Your task to perform on an android device: Open the calendar app, open the side menu, and click the "Day" option Image 0: 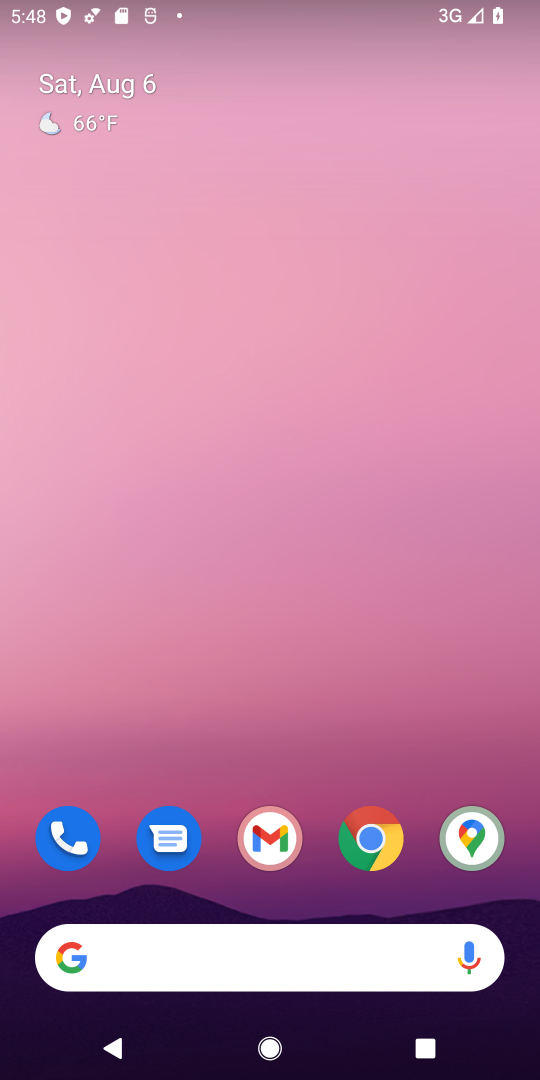
Step 0: drag from (373, 722) to (103, 4)
Your task to perform on an android device: Open the calendar app, open the side menu, and click the "Day" option Image 1: 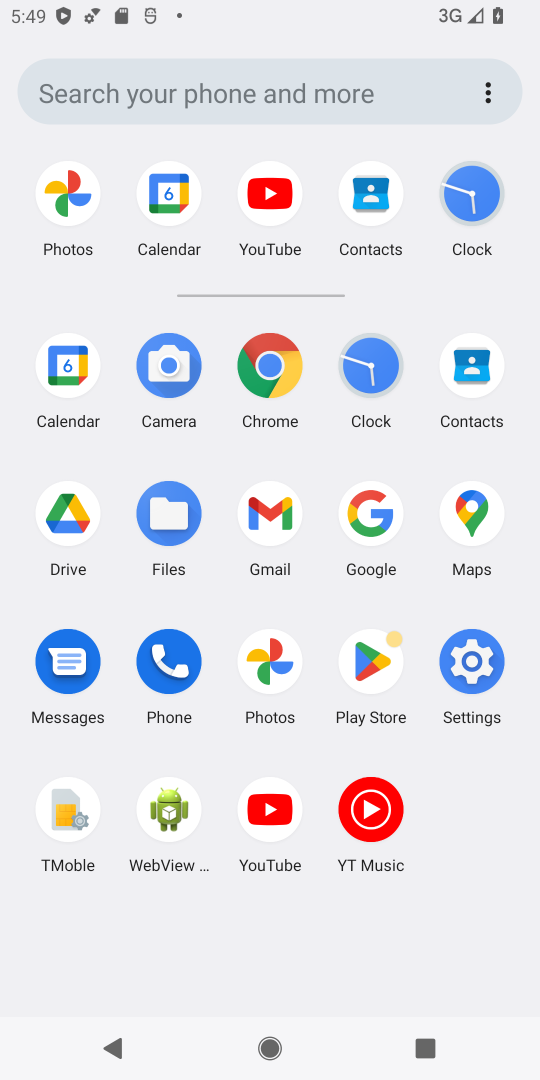
Step 1: click (57, 378)
Your task to perform on an android device: Open the calendar app, open the side menu, and click the "Day" option Image 2: 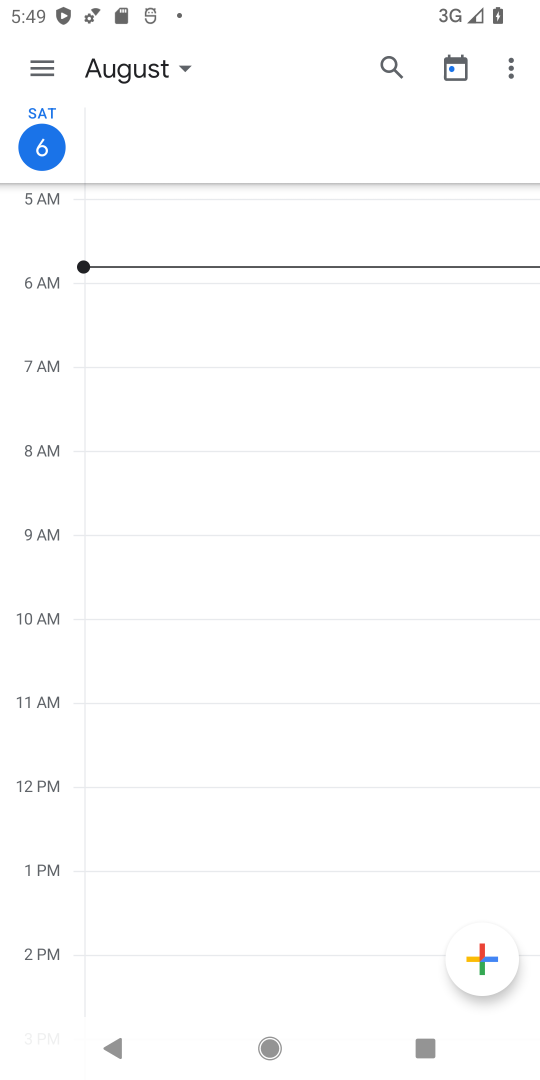
Step 2: click (50, 74)
Your task to perform on an android device: Open the calendar app, open the side menu, and click the "Day" option Image 3: 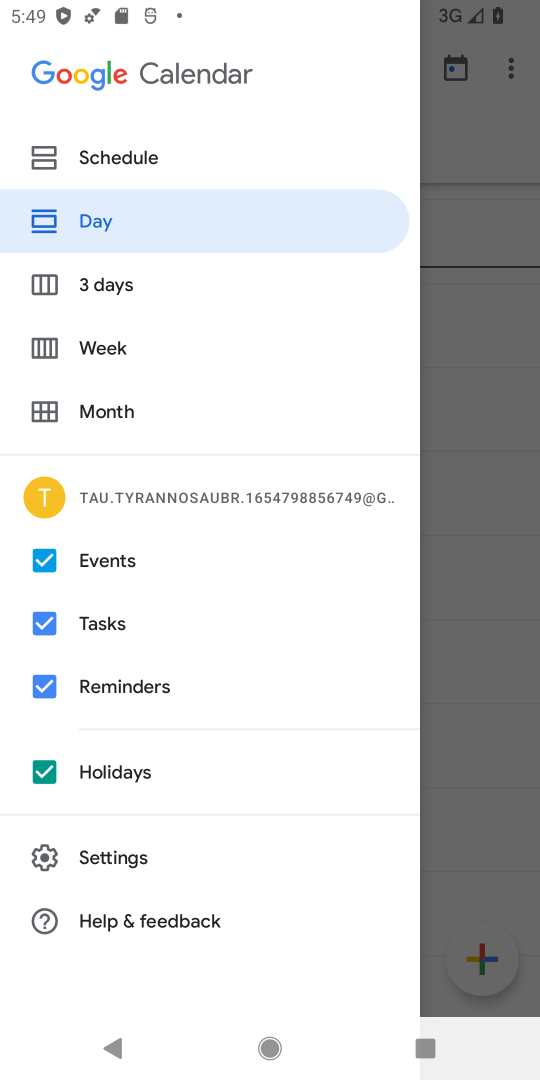
Step 3: click (118, 223)
Your task to perform on an android device: Open the calendar app, open the side menu, and click the "Day" option Image 4: 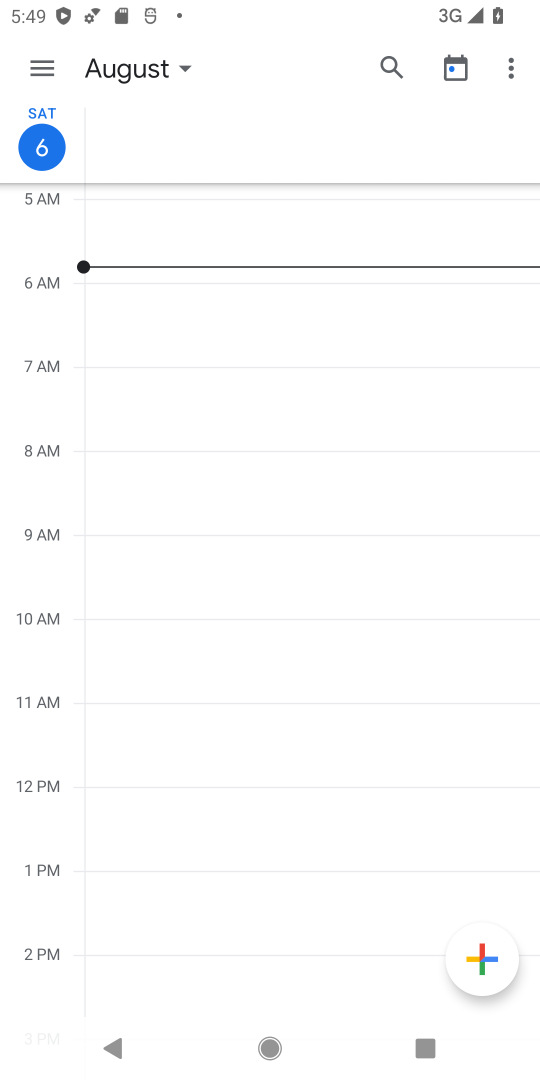
Step 4: task complete